Your task to perform on an android device: Open settings on Google Maps Image 0: 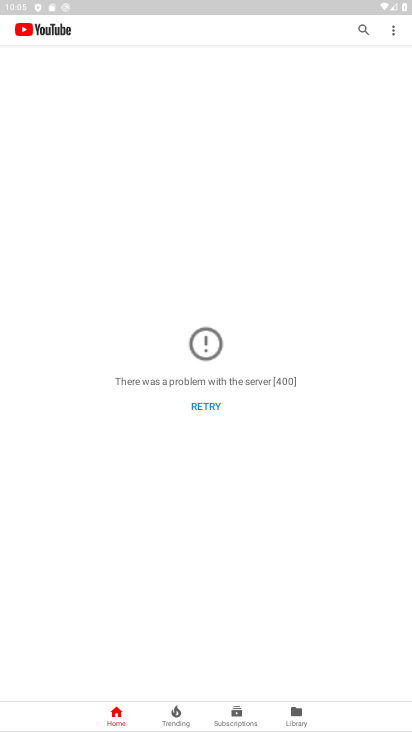
Step 0: press home button
Your task to perform on an android device: Open settings on Google Maps Image 1: 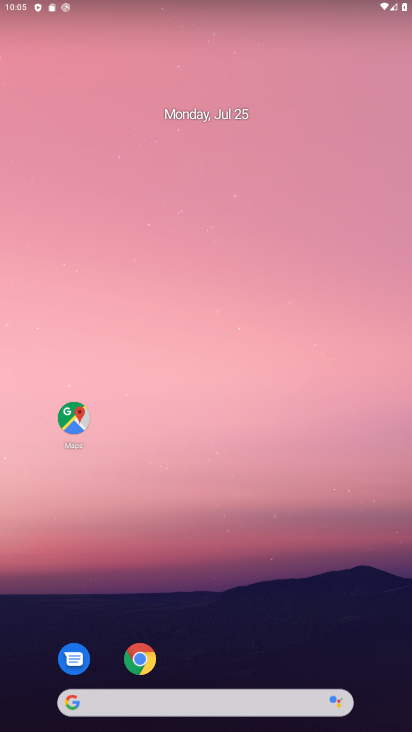
Step 1: click (66, 401)
Your task to perform on an android device: Open settings on Google Maps Image 2: 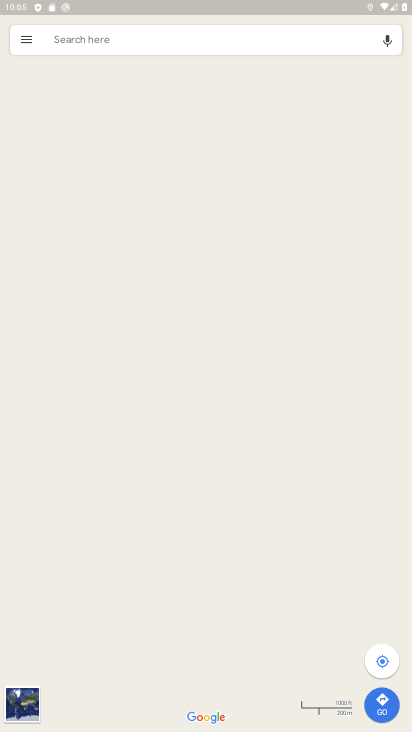
Step 2: click (23, 31)
Your task to perform on an android device: Open settings on Google Maps Image 3: 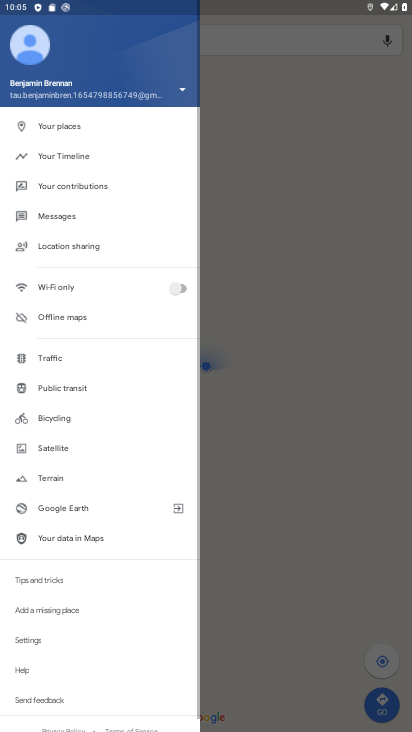
Step 3: click (30, 642)
Your task to perform on an android device: Open settings on Google Maps Image 4: 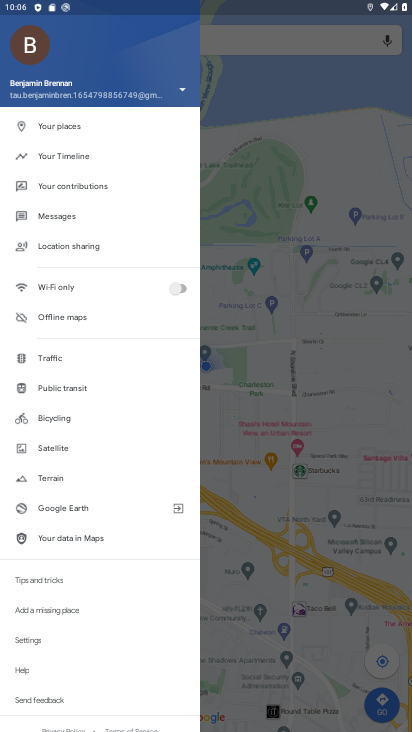
Step 4: click (30, 637)
Your task to perform on an android device: Open settings on Google Maps Image 5: 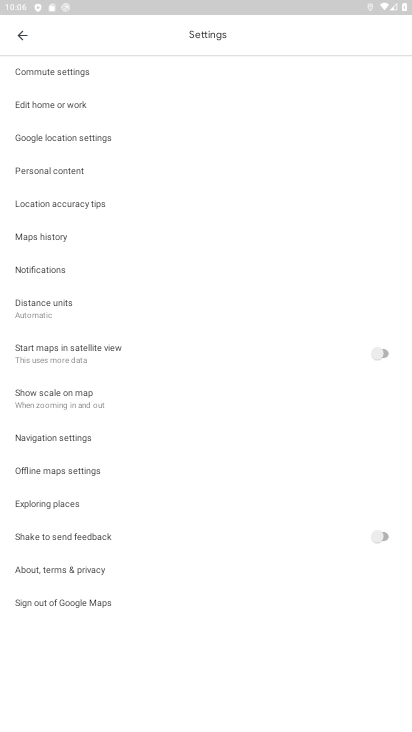
Step 5: task complete